Your task to perform on an android device: change the clock style Image 0: 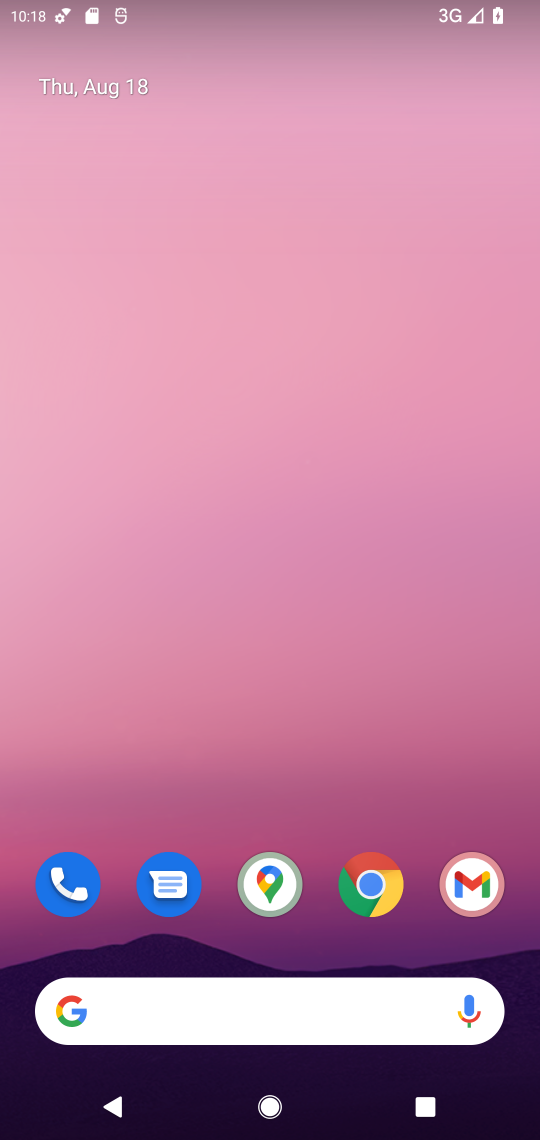
Step 0: drag from (254, 821) to (260, 31)
Your task to perform on an android device: change the clock style Image 1: 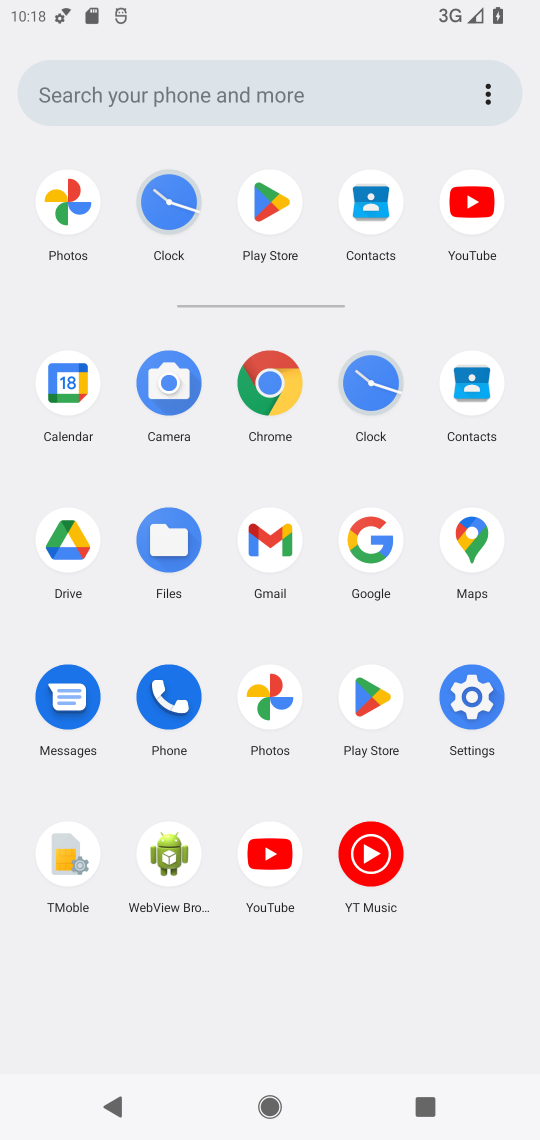
Step 1: click (364, 395)
Your task to perform on an android device: change the clock style Image 2: 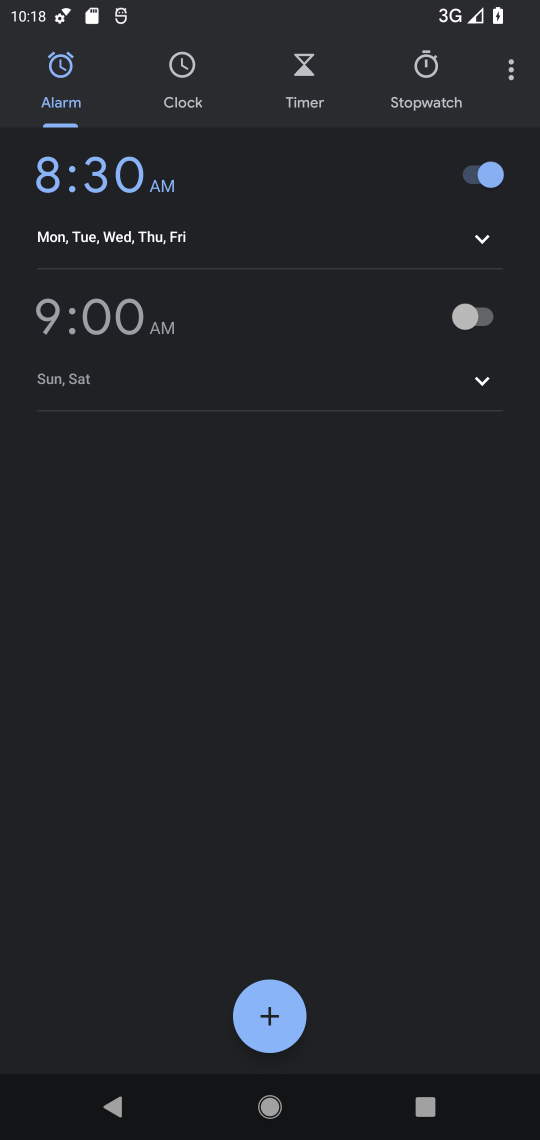
Step 2: click (516, 64)
Your task to perform on an android device: change the clock style Image 3: 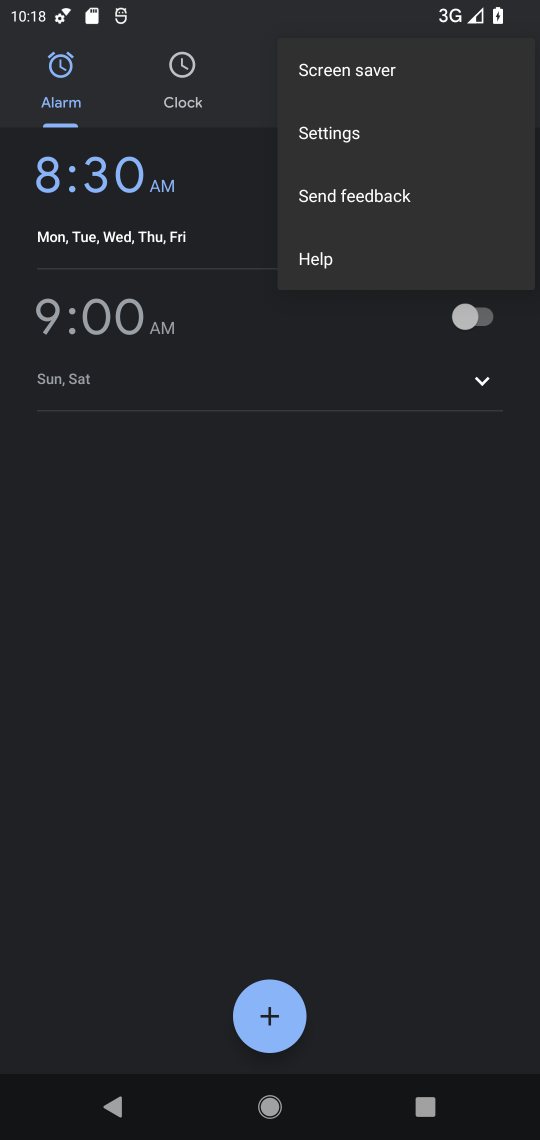
Step 3: click (359, 130)
Your task to perform on an android device: change the clock style Image 4: 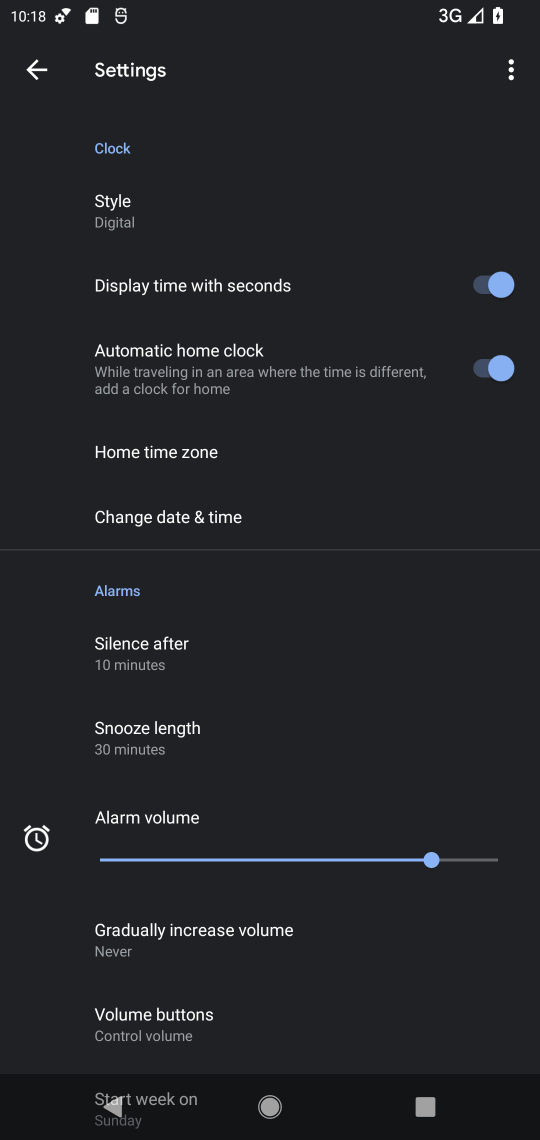
Step 4: click (179, 212)
Your task to perform on an android device: change the clock style Image 5: 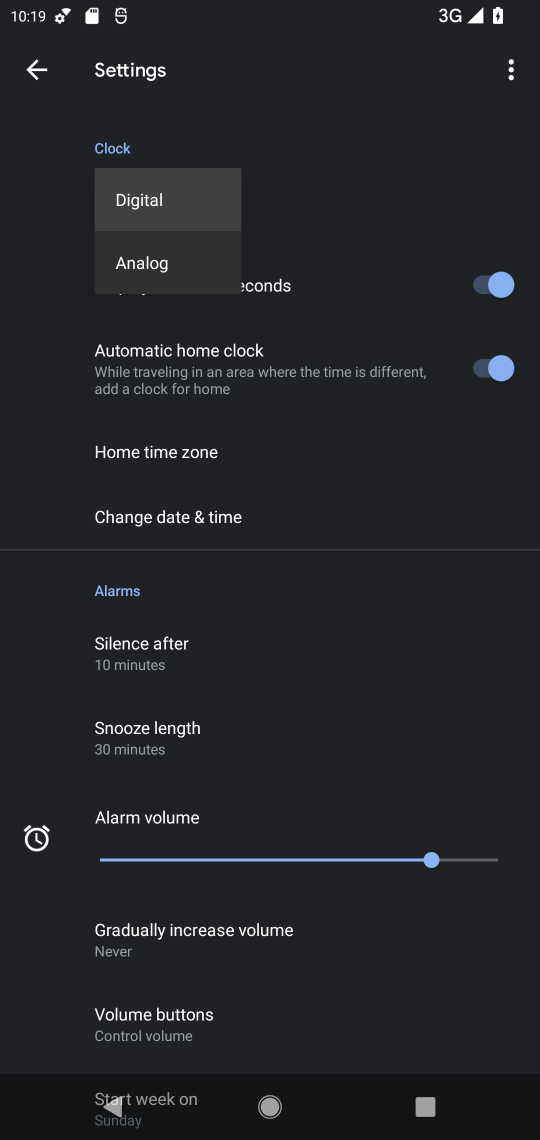
Step 5: click (153, 293)
Your task to perform on an android device: change the clock style Image 6: 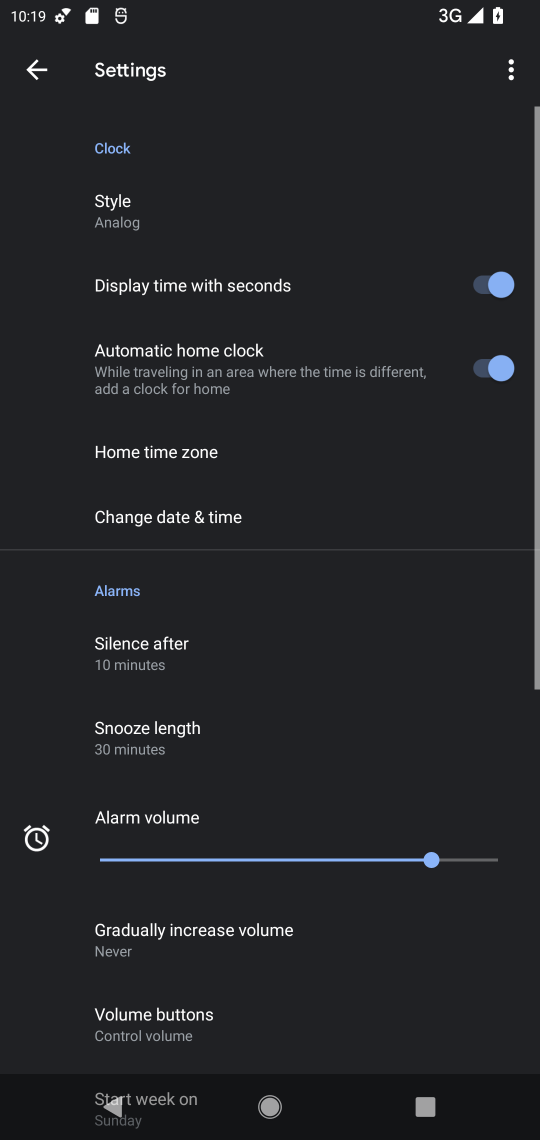
Step 6: click (146, 280)
Your task to perform on an android device: change the clock style Image 7: 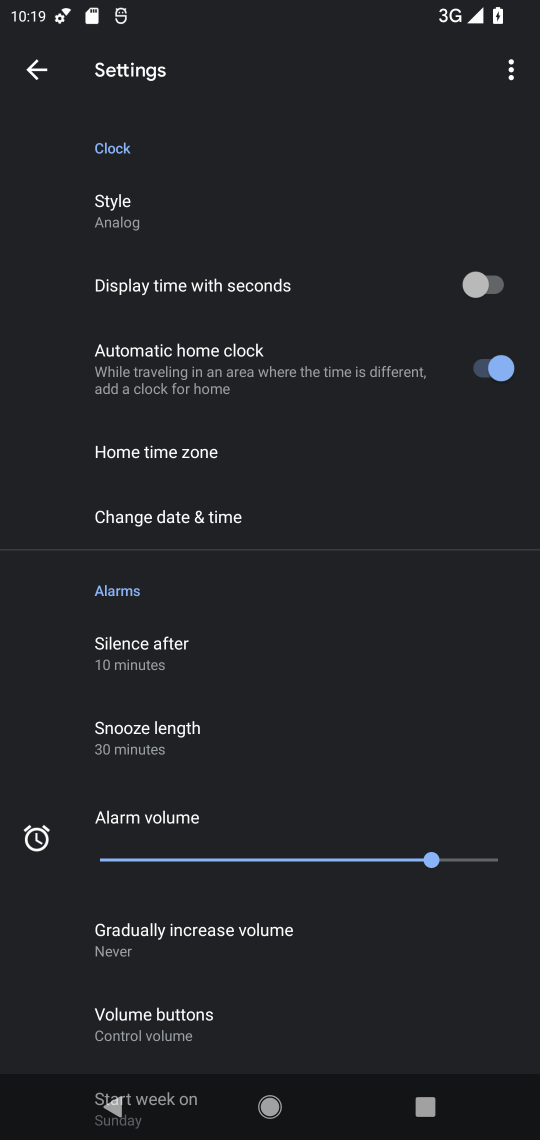
Step 7: click (192, 230)
Your task to perform on an android device: change the clock style Image 8: 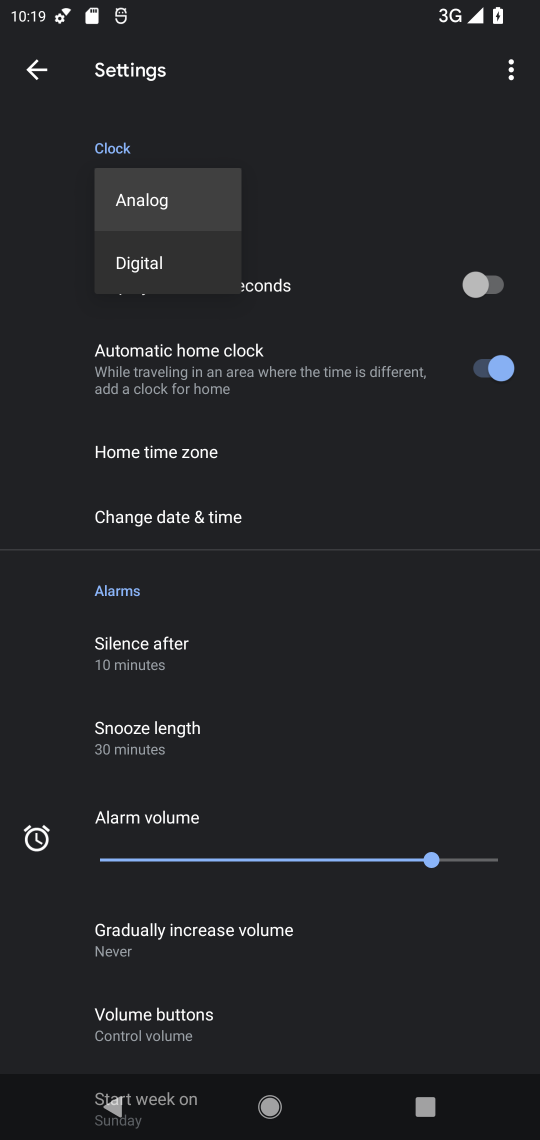
Step 8: click (192, 269)
Your task to perform on an android device: change the clock style Image 9: 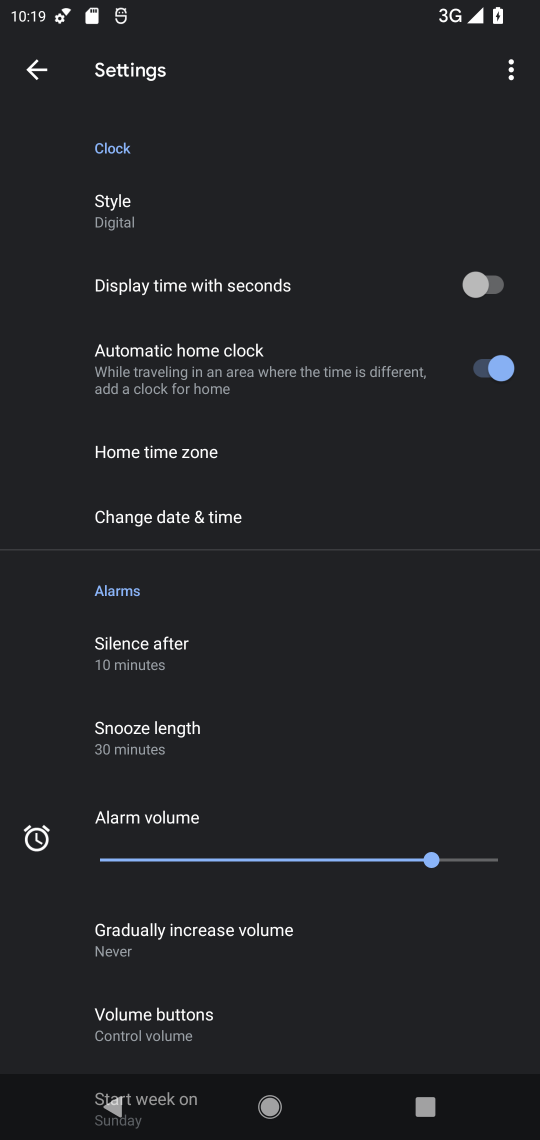
Step 9: task complete